Your task to perform on an android device: Do I have any events this weekend? Image 0: 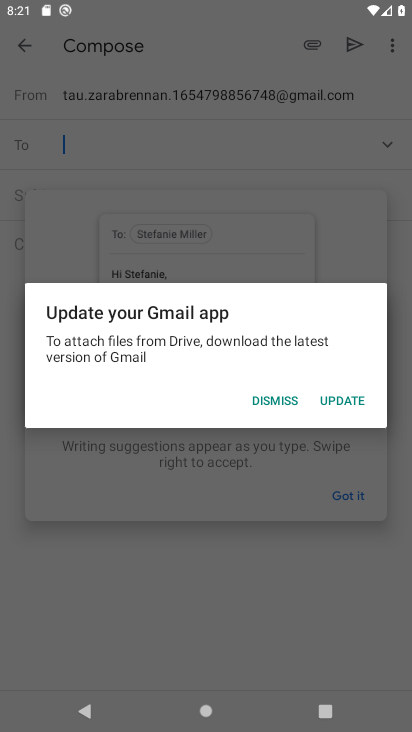
Step 0: press home button
Your task to perform on an android device: Do I have any events this weekend? Image 1: 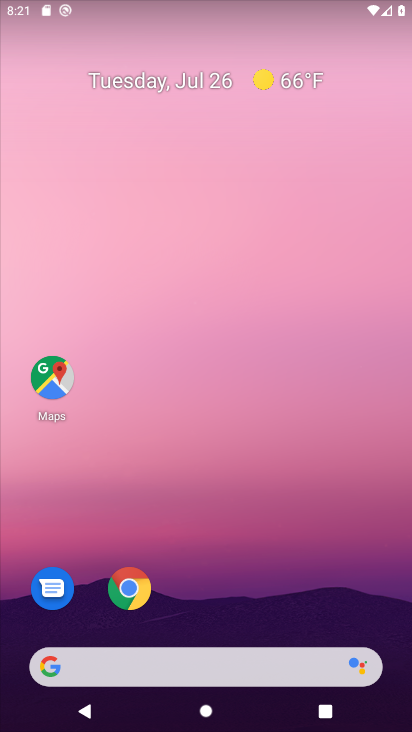
Step 1: drag from (241, 721) to (223, 124)
Your task to perform on an android device: Do I have any events this weekend? Image 2: 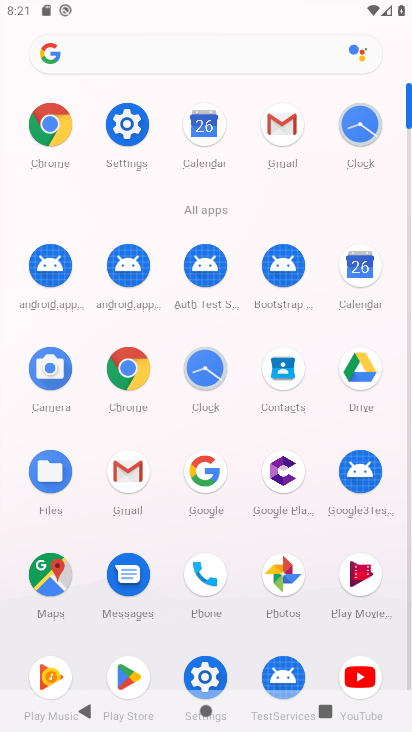
Step 2: click (357, 277)
Your task to perform on an android device: Do I have any events this weekend? Image 3: 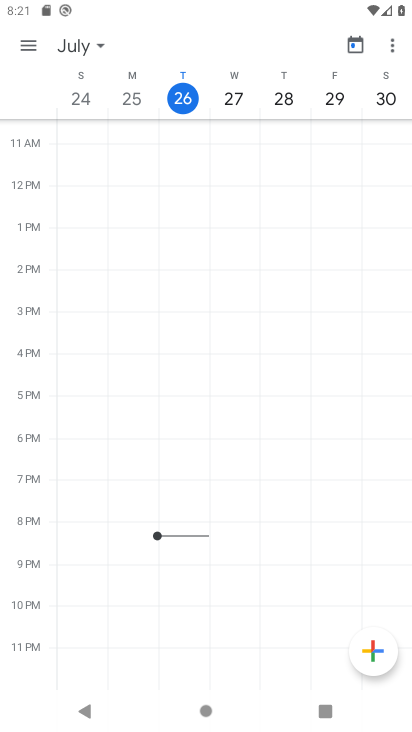
Step 3: click (379, 97)
Your task to perform on an android device: Do I have any events this weekend? Image 4: 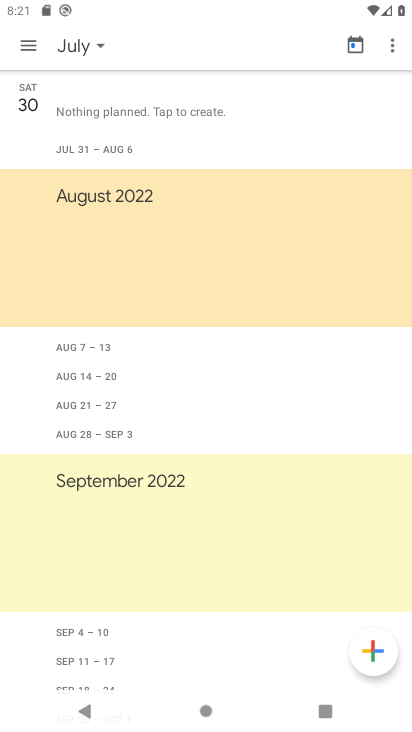
Step 4: task complete